Your task to perform on an android device: check the backup settings in the google photos Image 0: 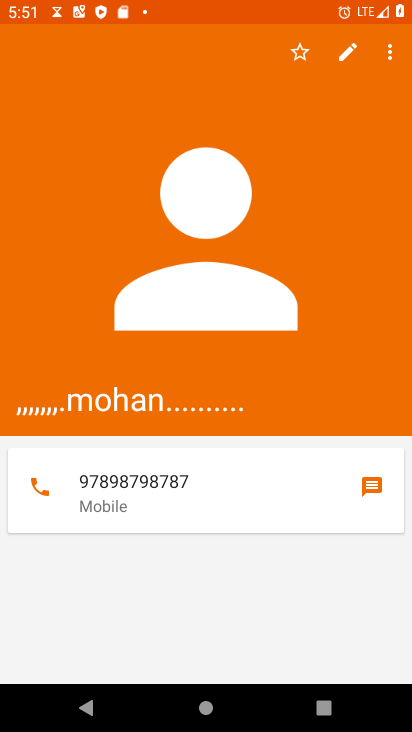
Step 0: press home button
Your task to perform on an android device: check the backup settings in the google photos Image 1: 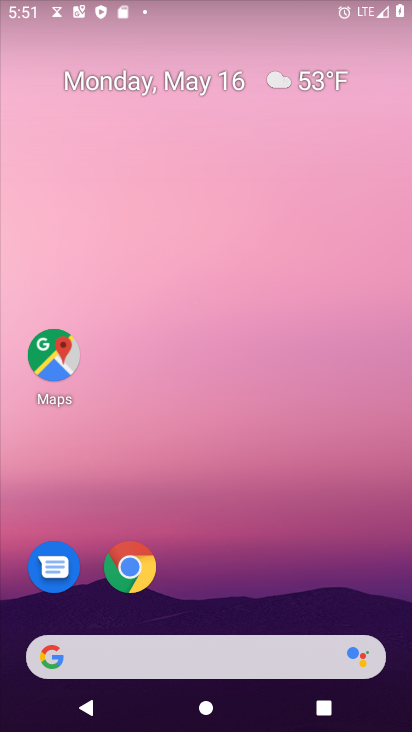
Step 1: drag from (208, 684) to (353, 3)
Your task to perform on an android device: check the backup settings in the google photos Image 2: 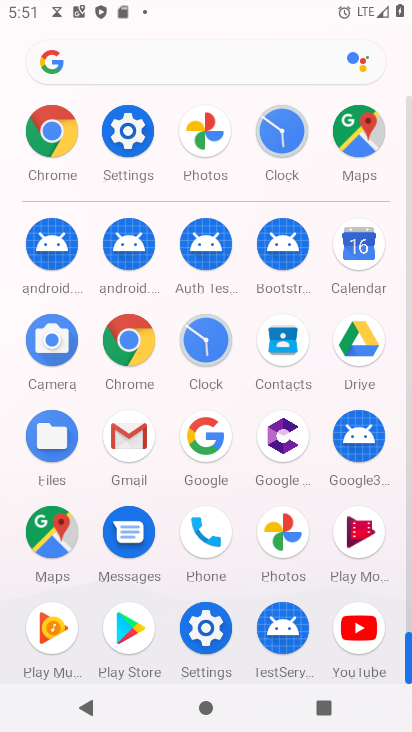
Step 2: click (294, 547)
Your task to perform on an android device: check the backup settings in the google photos Image 3: 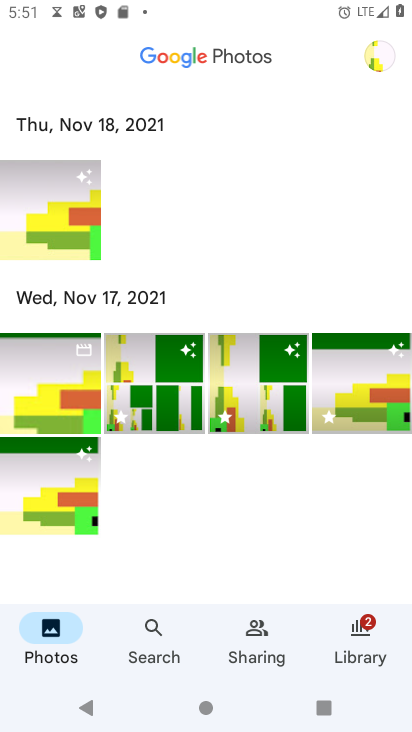
Step 3: click (382, 53)
Your task to perform on an android device: check the backup settings in the google photos Image 4: 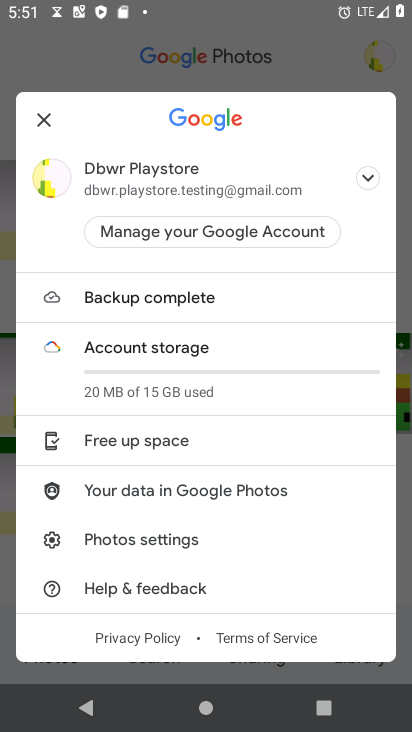
Step 4: click (233, 189)
Your task to perform on an android device: check the backup settings in the google photos Image 5: 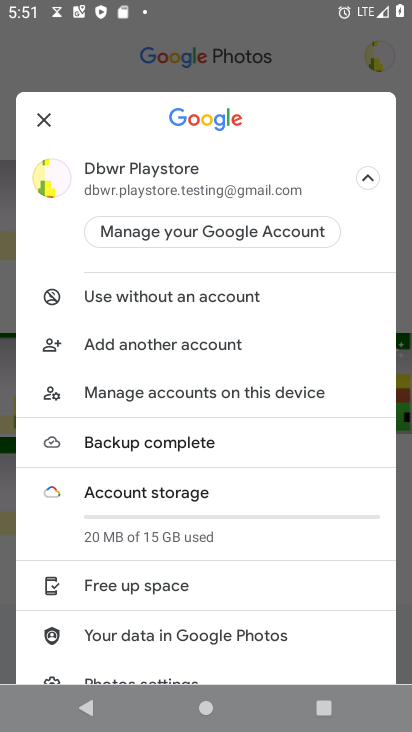
Step 5: click (169, 169)
Your task to perform on an android device: check the backup settings in the google photos Image 6: 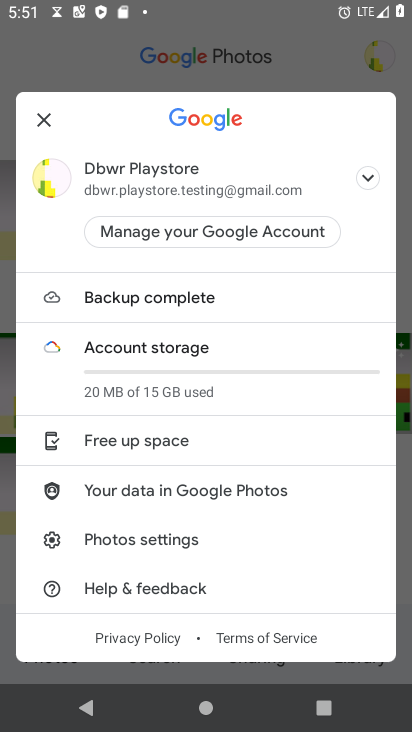
Step 6: click (176, 544)
Your task to perform on an android device: check the backup settings in the google photos Image 7: 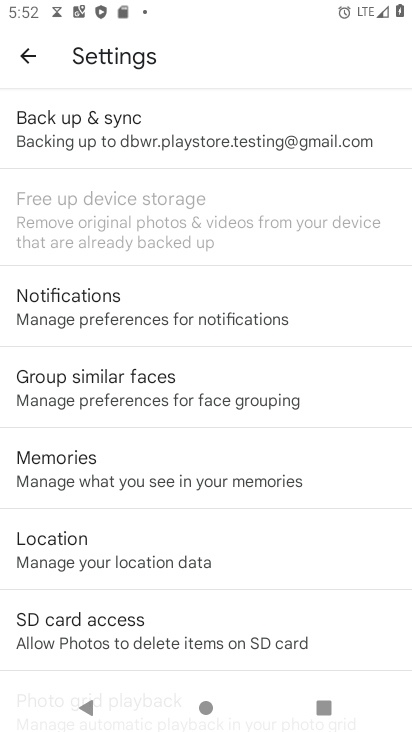
Step 7: task complete